Your task to perform on an android device: turn off data saver in the chrome app Image 0: 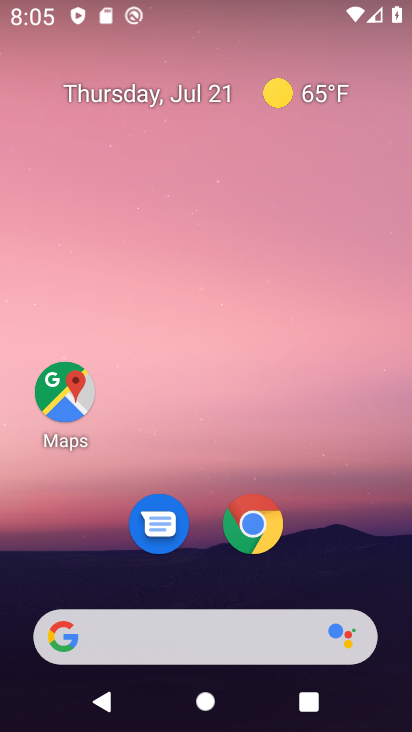
Step 0: click (276, 531)
Your task to perform on an android device: turn off data saver in the chrome app Image 1: 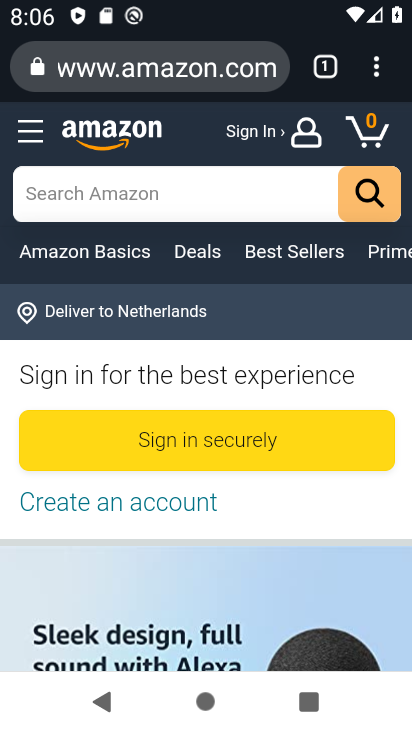
Step 1: drag from (379, 74) to (177, 531)
Your task to perform on an android device: turn off data saver in the chrome app Image 2: 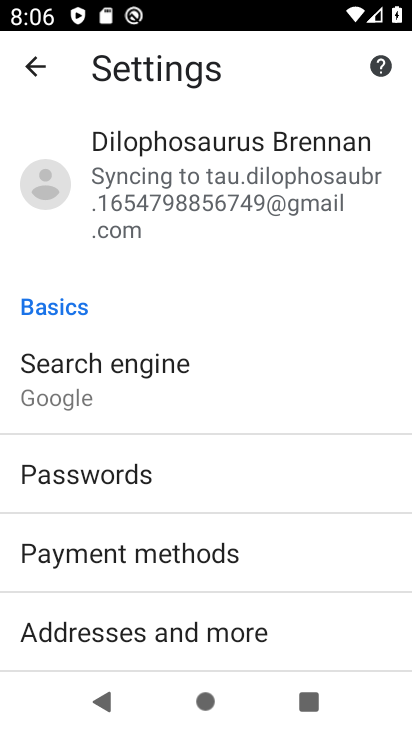
Step 2: drag from (155, 595) to (125, 81)
Your task to perform on an android device: turn off data saver in the chrome app Image 3: 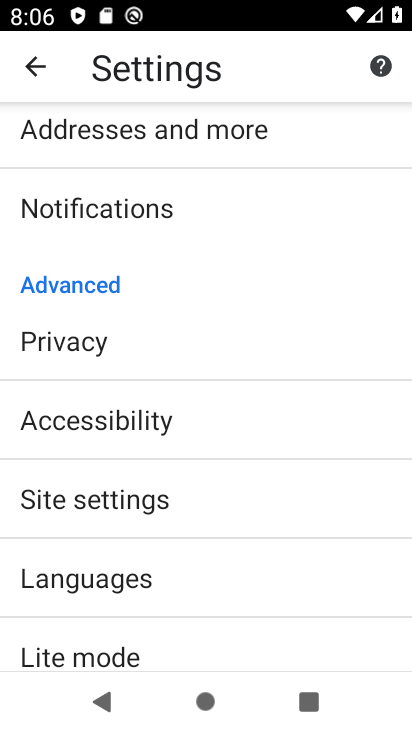
Step 3: click (116, 641)
Your task to perform on an android device: turn off data saver in the chrome app Image 4: 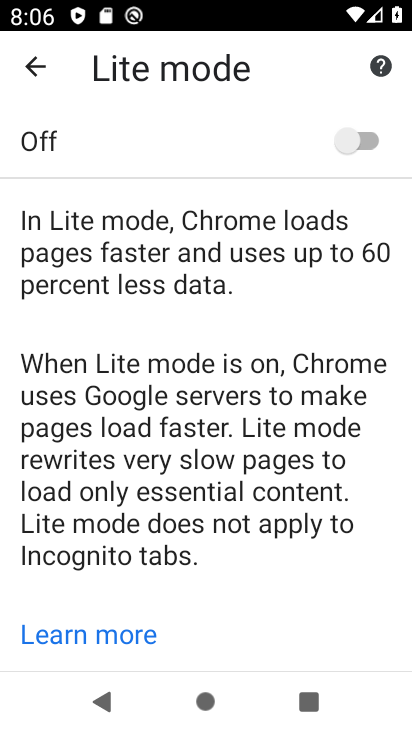
Step 4: task complete